Your task to perform on an android device: What's the weather? Image 0: 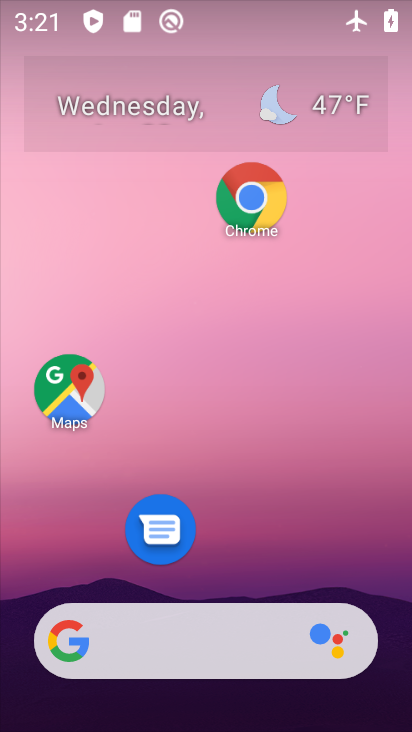
Step 0: click (314, 101)
Your task to perform on an android device: What's the weather? Image 1: 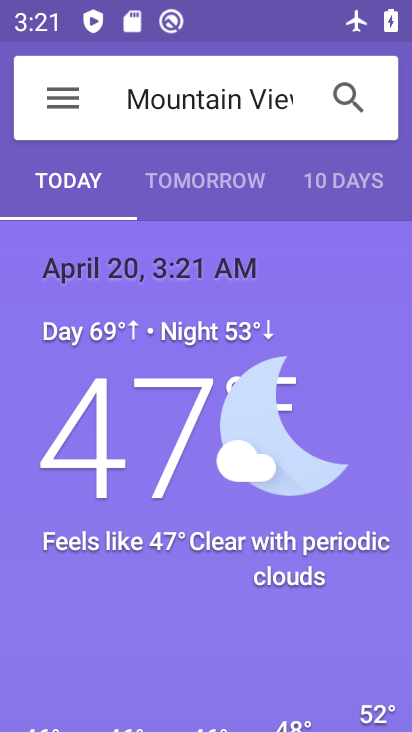
Step 1: task complete